Your task to perform on an android device: open app "Google Find My Device" (install if not already installed) Image 0: 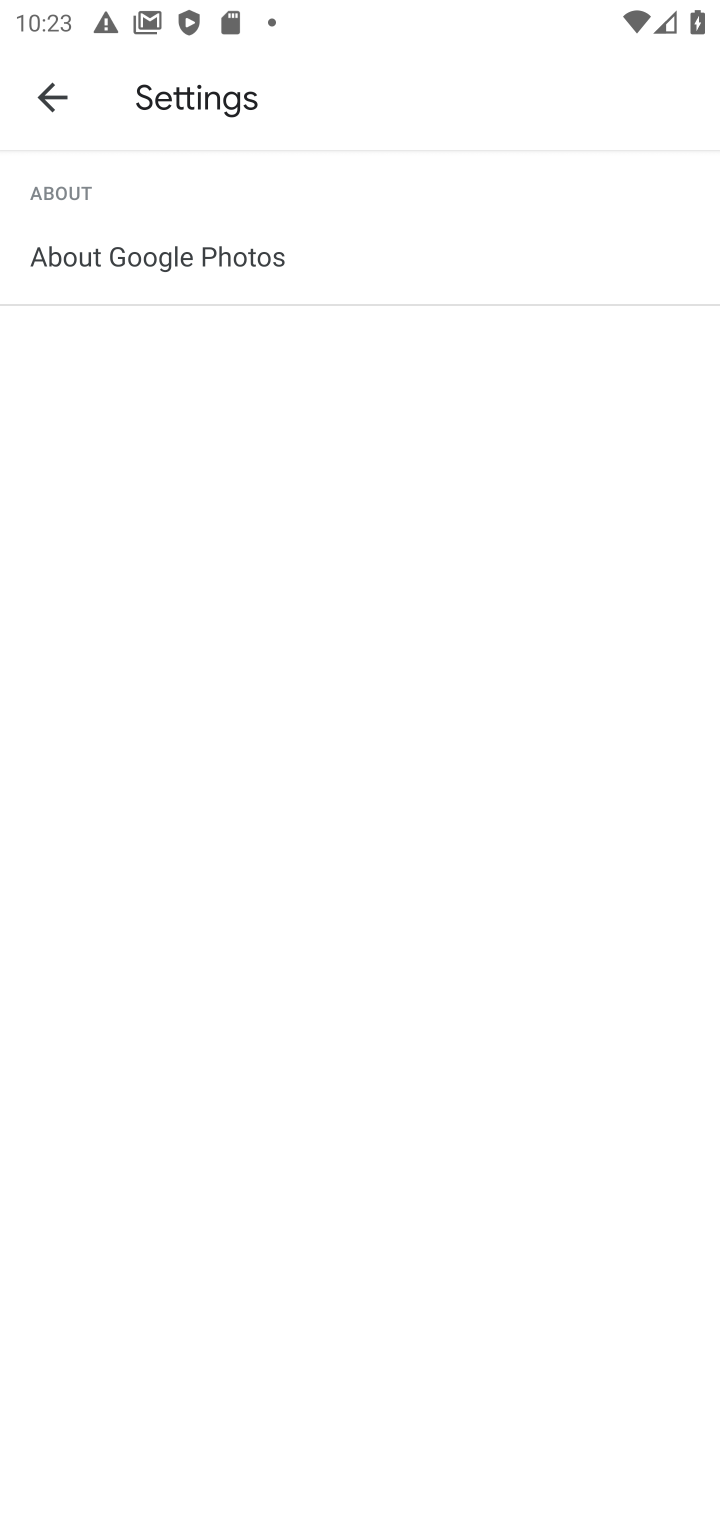
Step 0: press home button
Your task to perform on an android device: open app "Google Find My Device" (install if not already installed) Image 1: 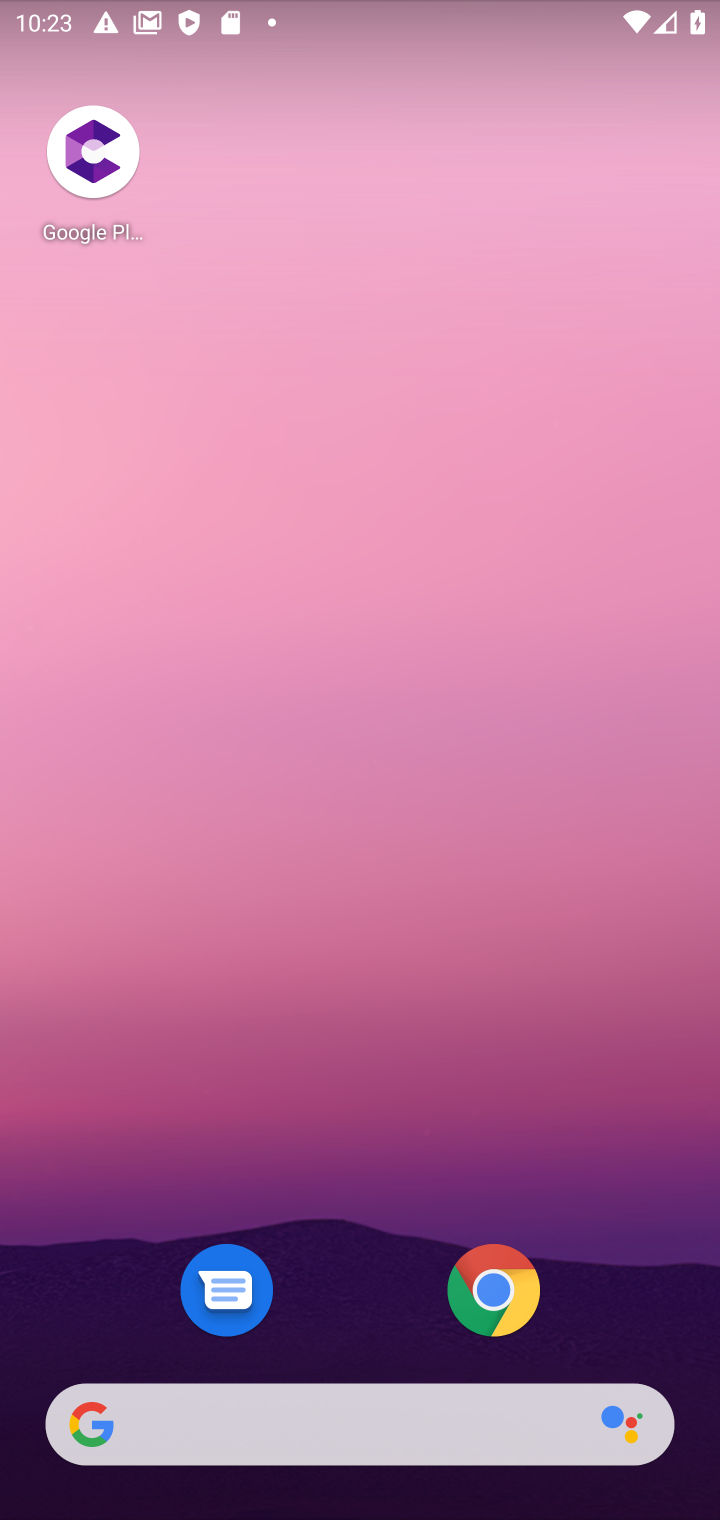
Step 1: drag from (369, 597) to (369, 267)
Your task to perform on an android device: open app "Google Find My Device" (install if not already installed) Image 2: 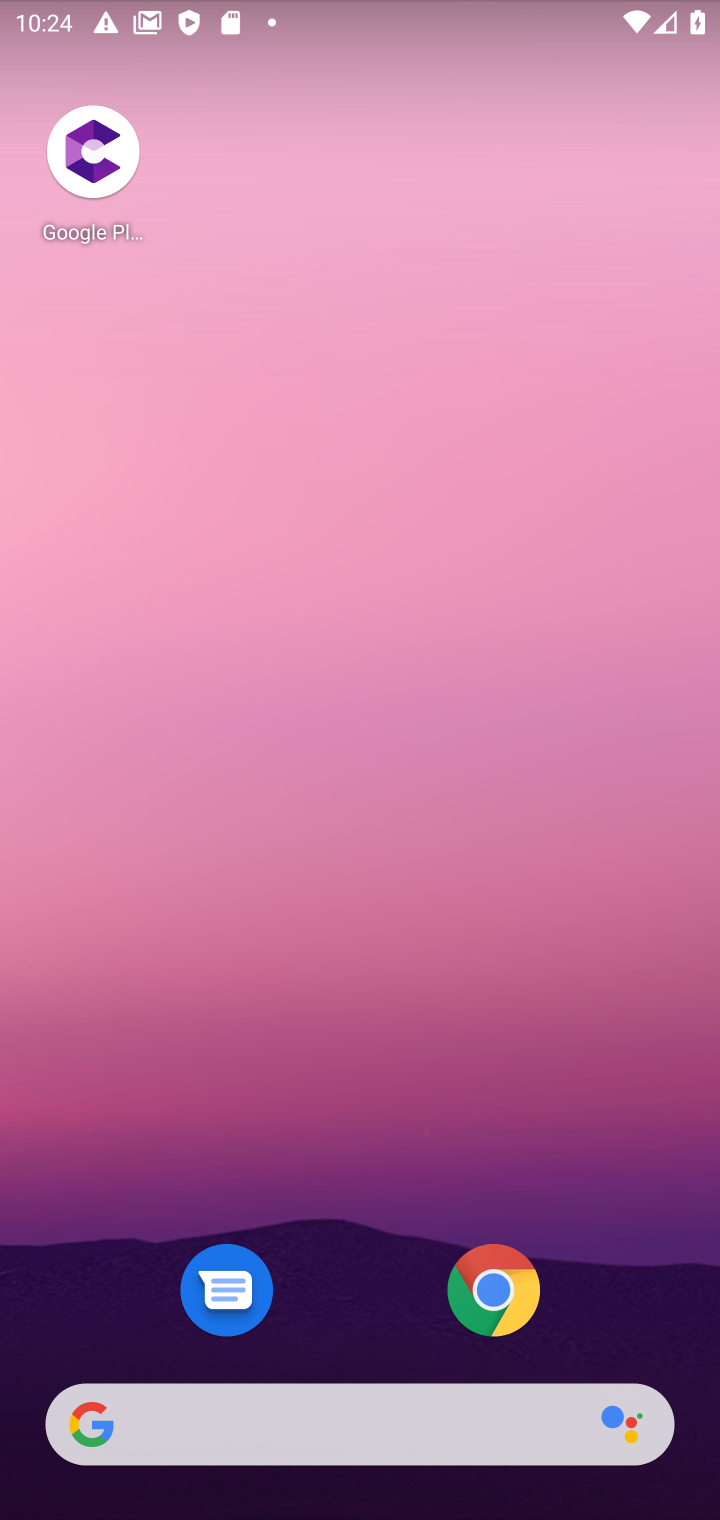
Step 2: drag from (337, 1301) to (338, 206)
Your task to perform on an android device: open app "Google Find My Device" (install if not already installed) Image 3: 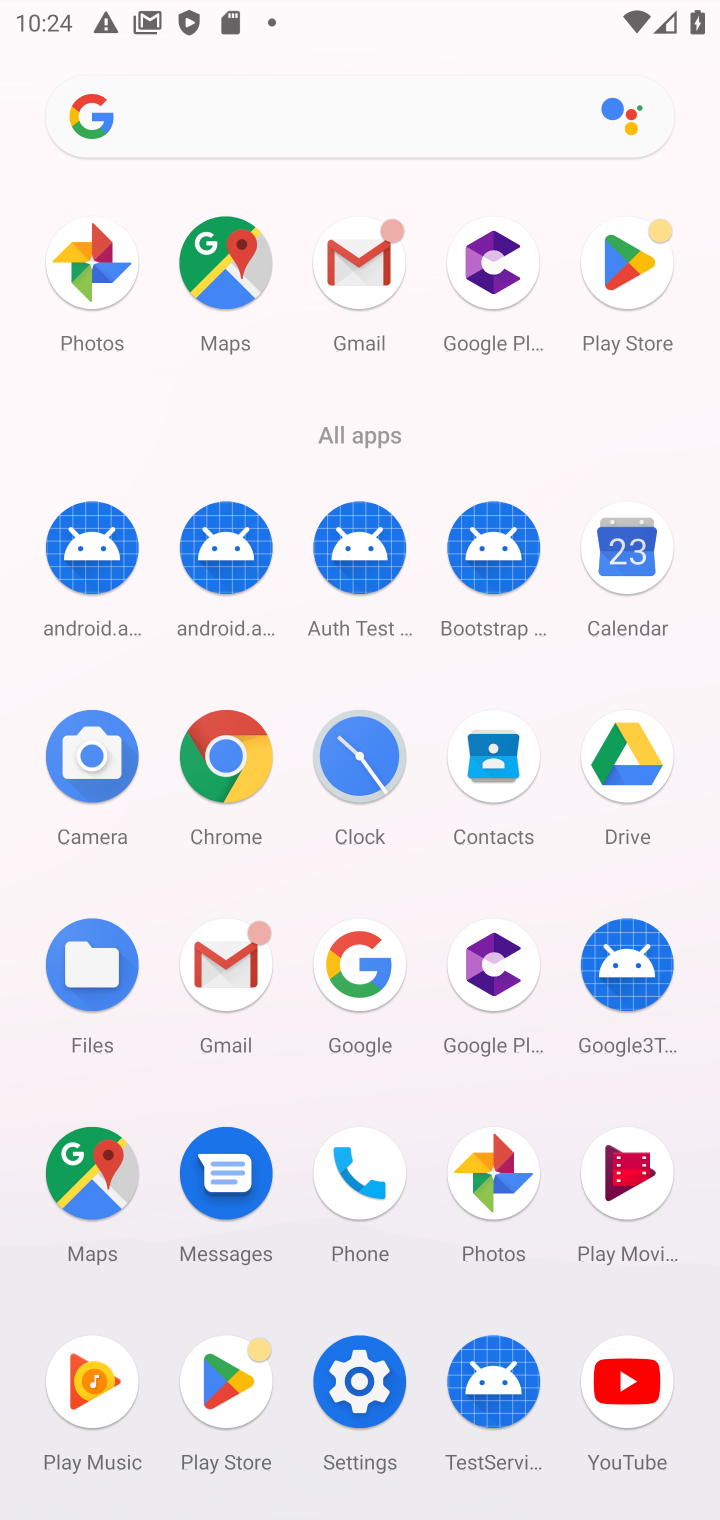
Step 3: click (627, 266)
Your task to perform on an android device: open app "Google Find My Device" (install if not already installed) Image 4: 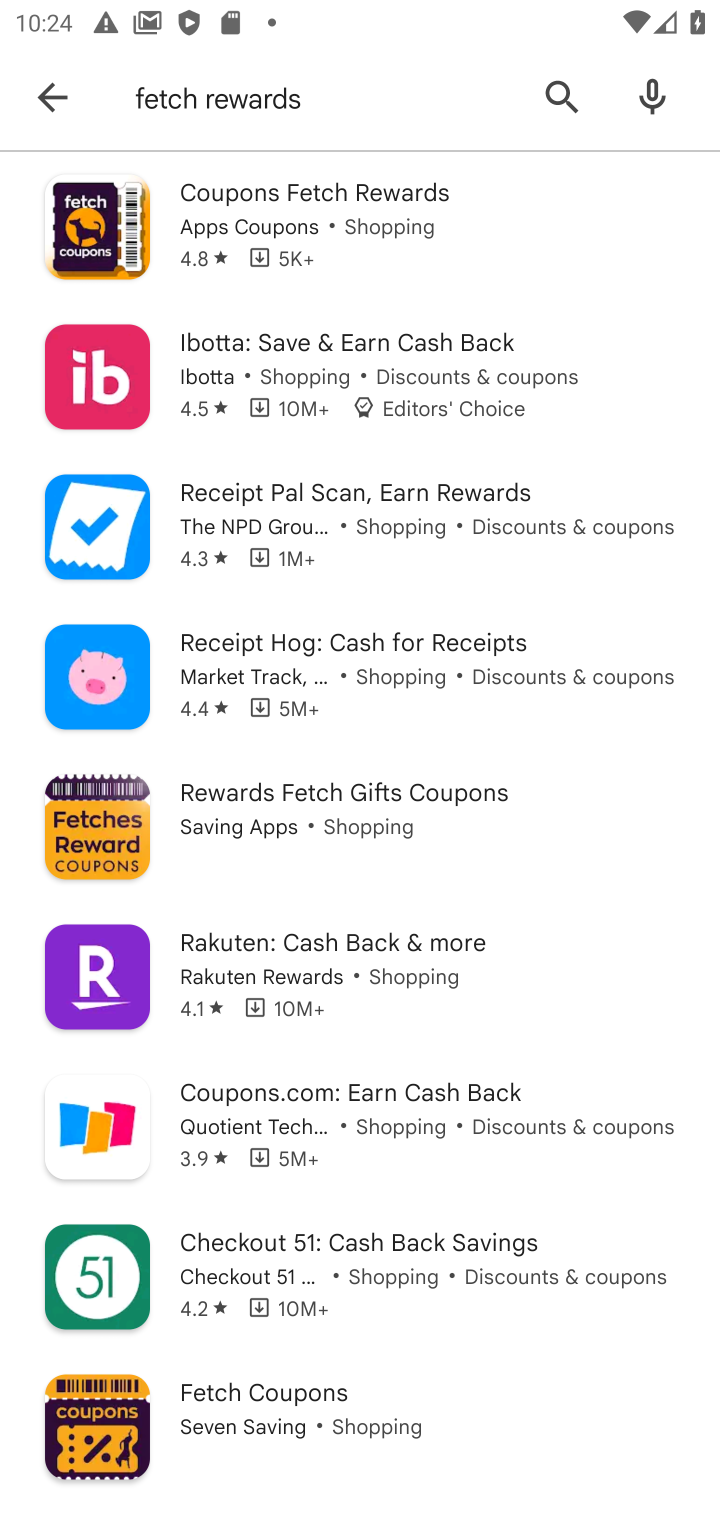
Step 4: click (555, 89)
Your task to perform on an android device: open app "Google Find My Device" (install if not already installed) Image 5: 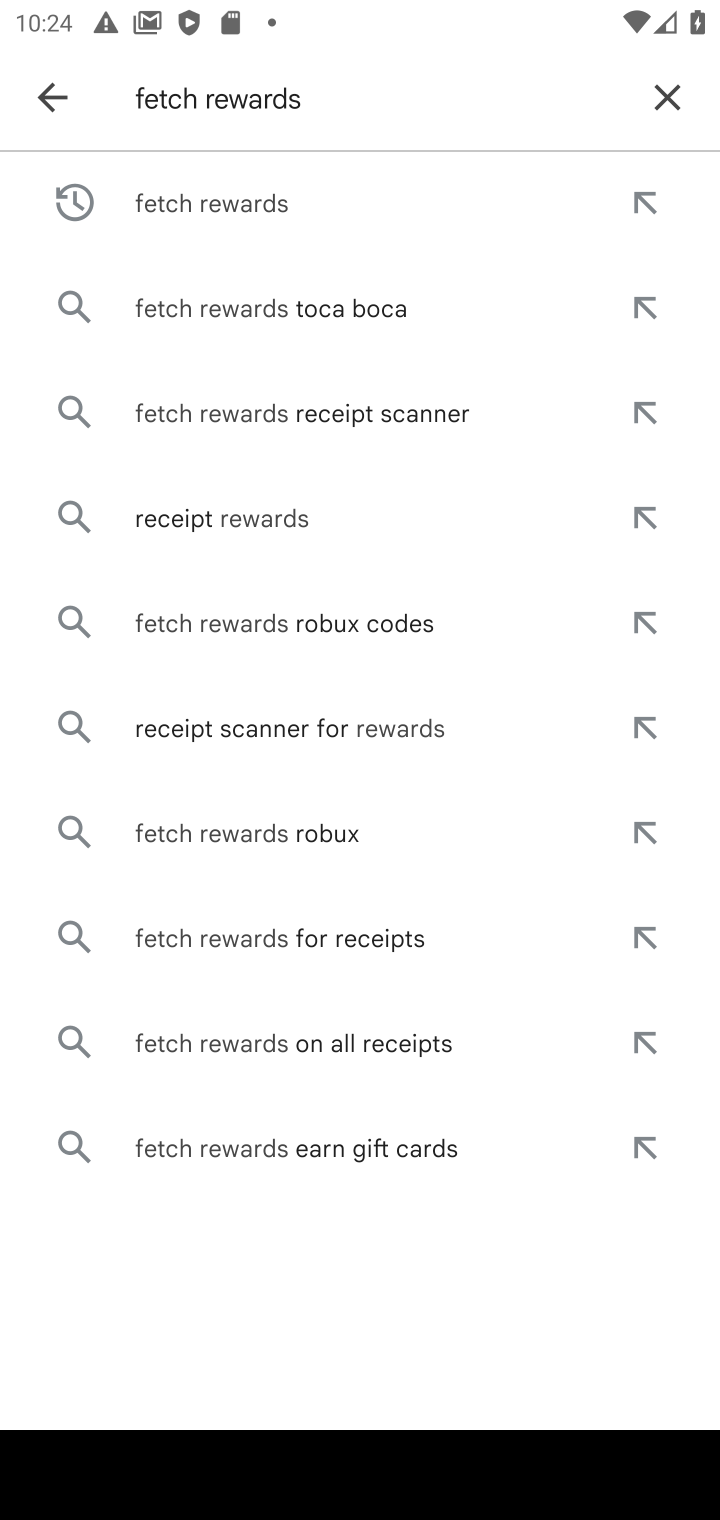
Step 5: click (671, 86)
Your task to perform on an android device: open app "Google Find My Device" (install if not already installed) Image 6: 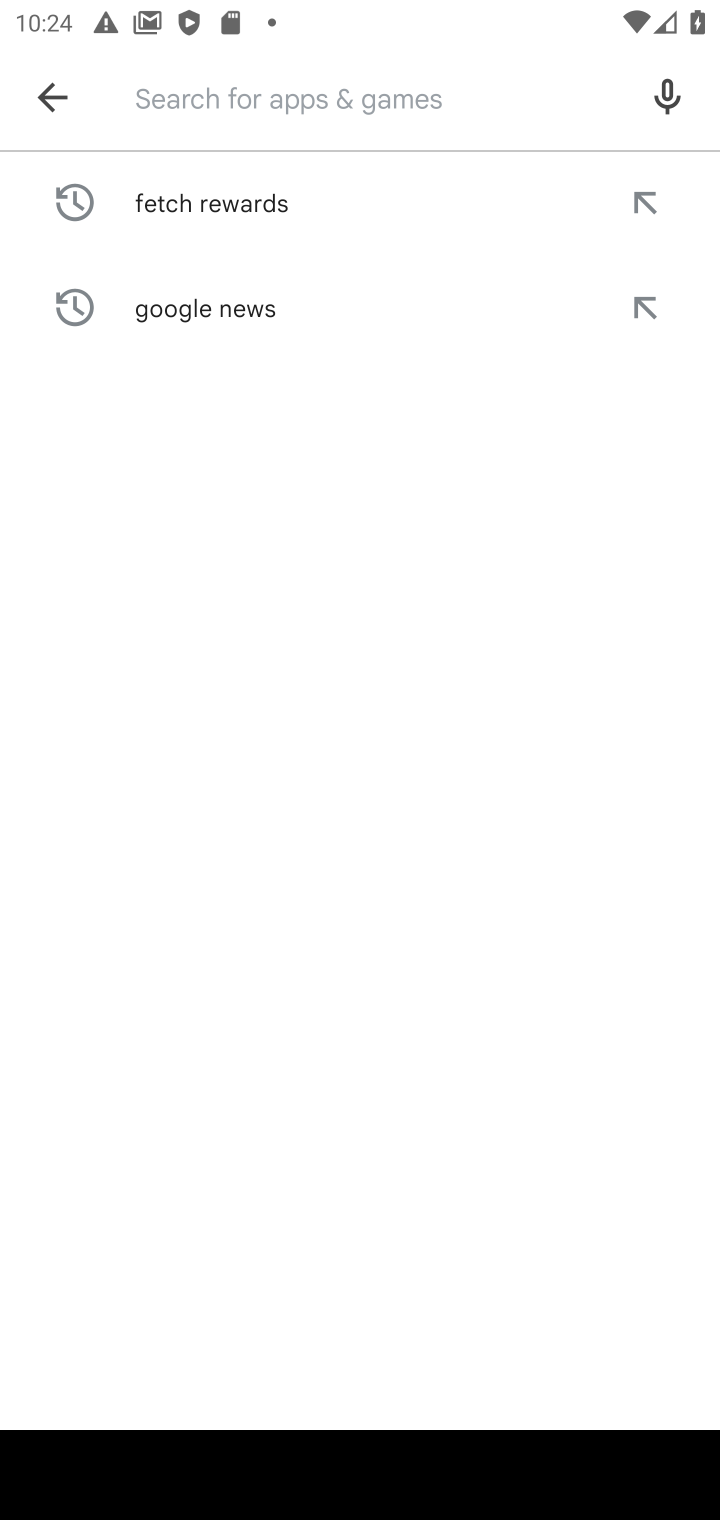
Step 6: type "Google Find My Device"
Your task to perform on an android device: open app "Google Find My Device" (install if not already installed) Image 7: 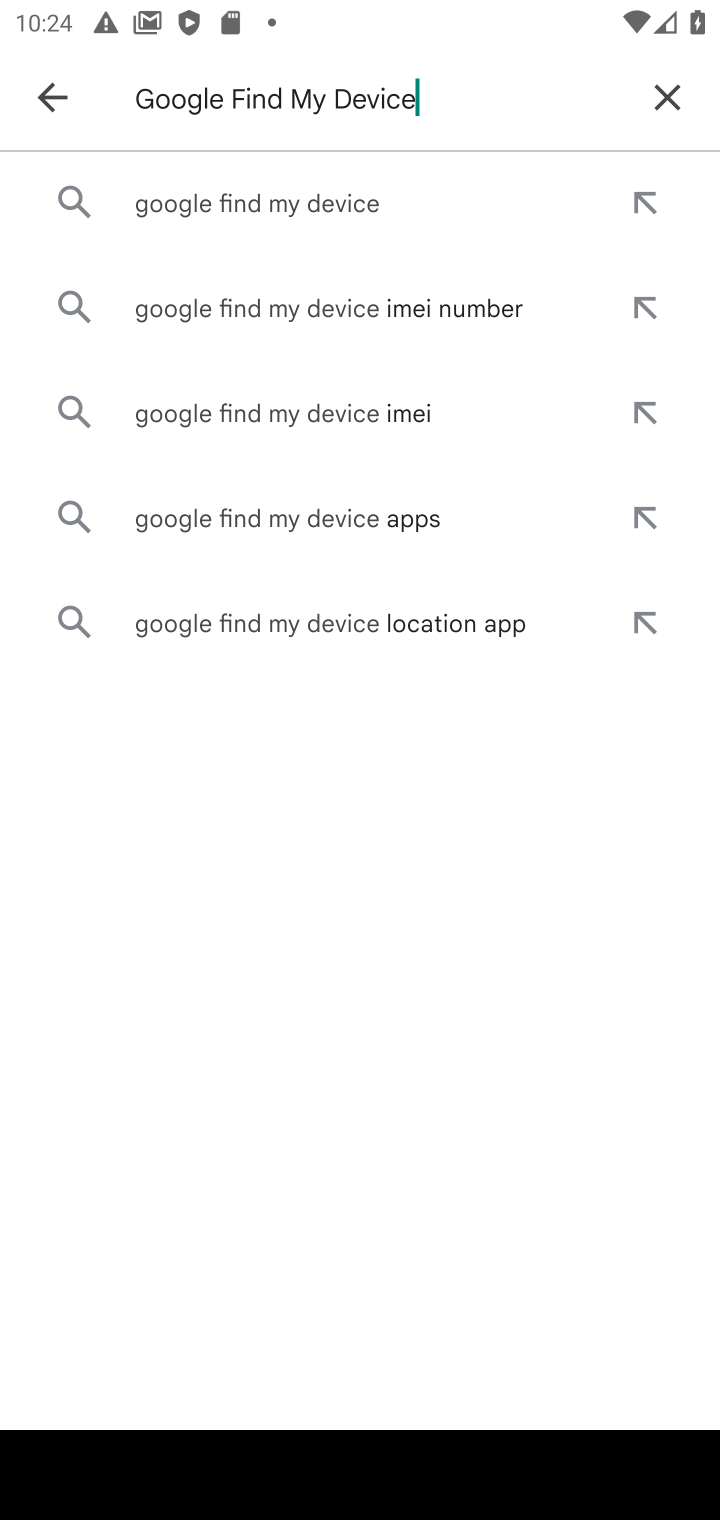
Step 7: click (257, 203)
Your task to perform on an android device: open app "Google Find My Device" (install if not already installed) Image 8: 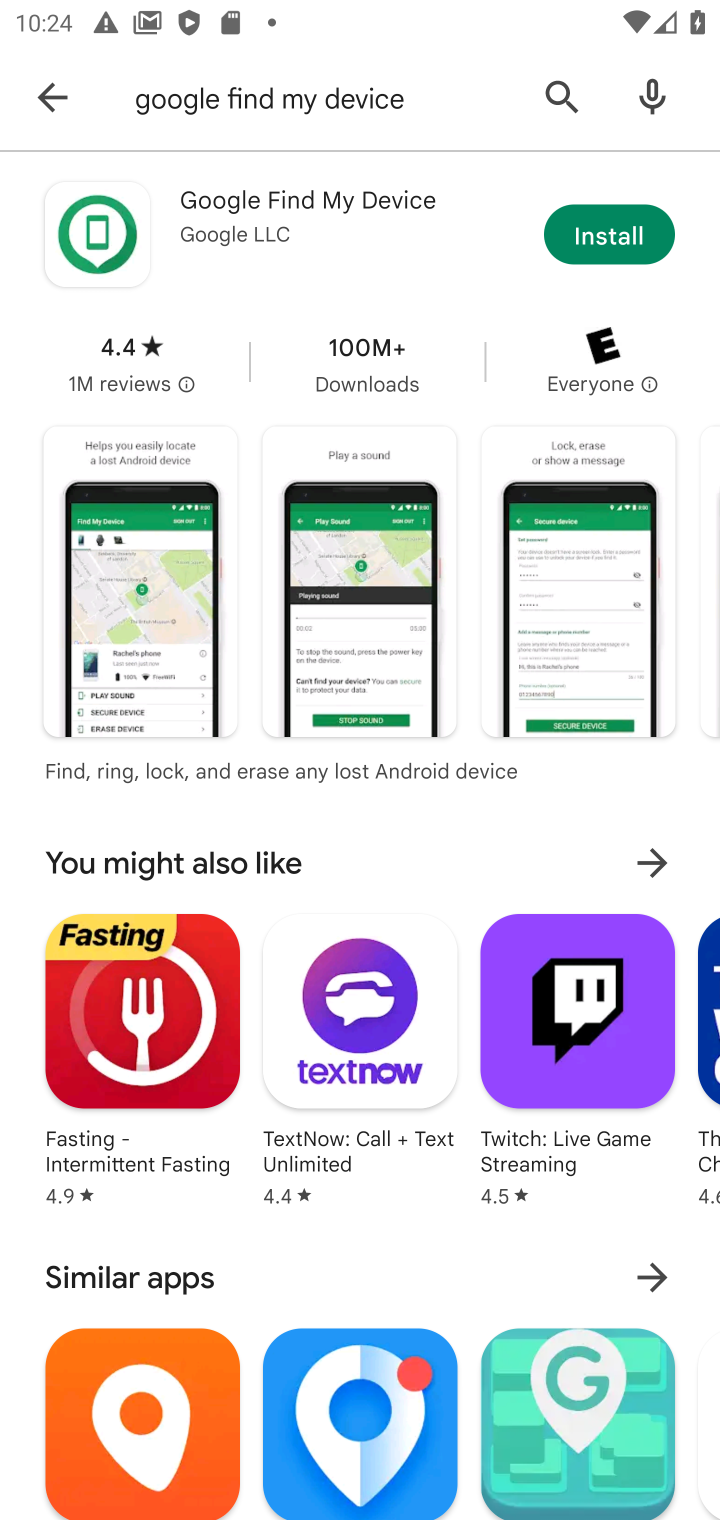
Step 8: click (596, 232)
Your task to perform on an android device: open app "Google Find My Device" (install if not already installed) Image 9: 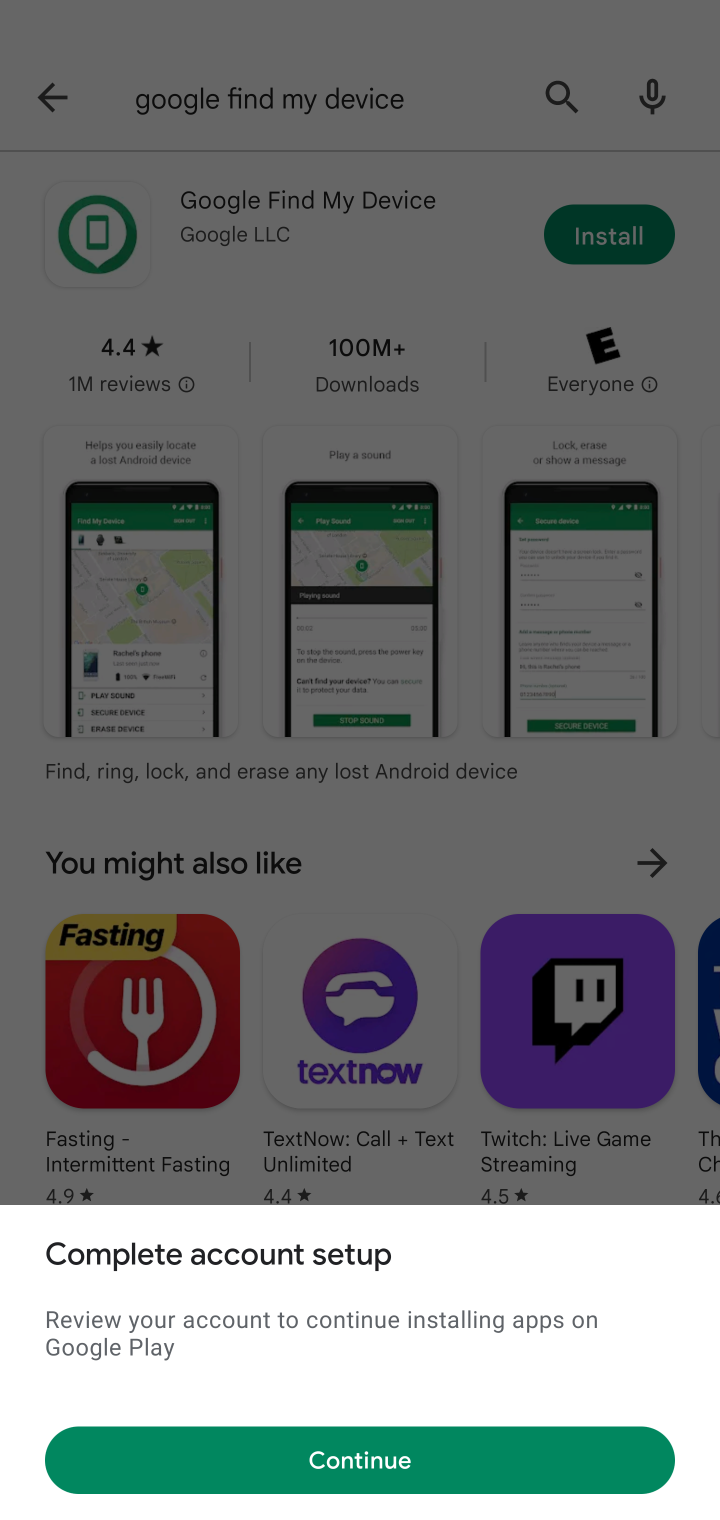
Step 9: click (417, 1476)
Your task to perform on an android device: open app "Google Find My Device" (install if not already installed) Image 10: 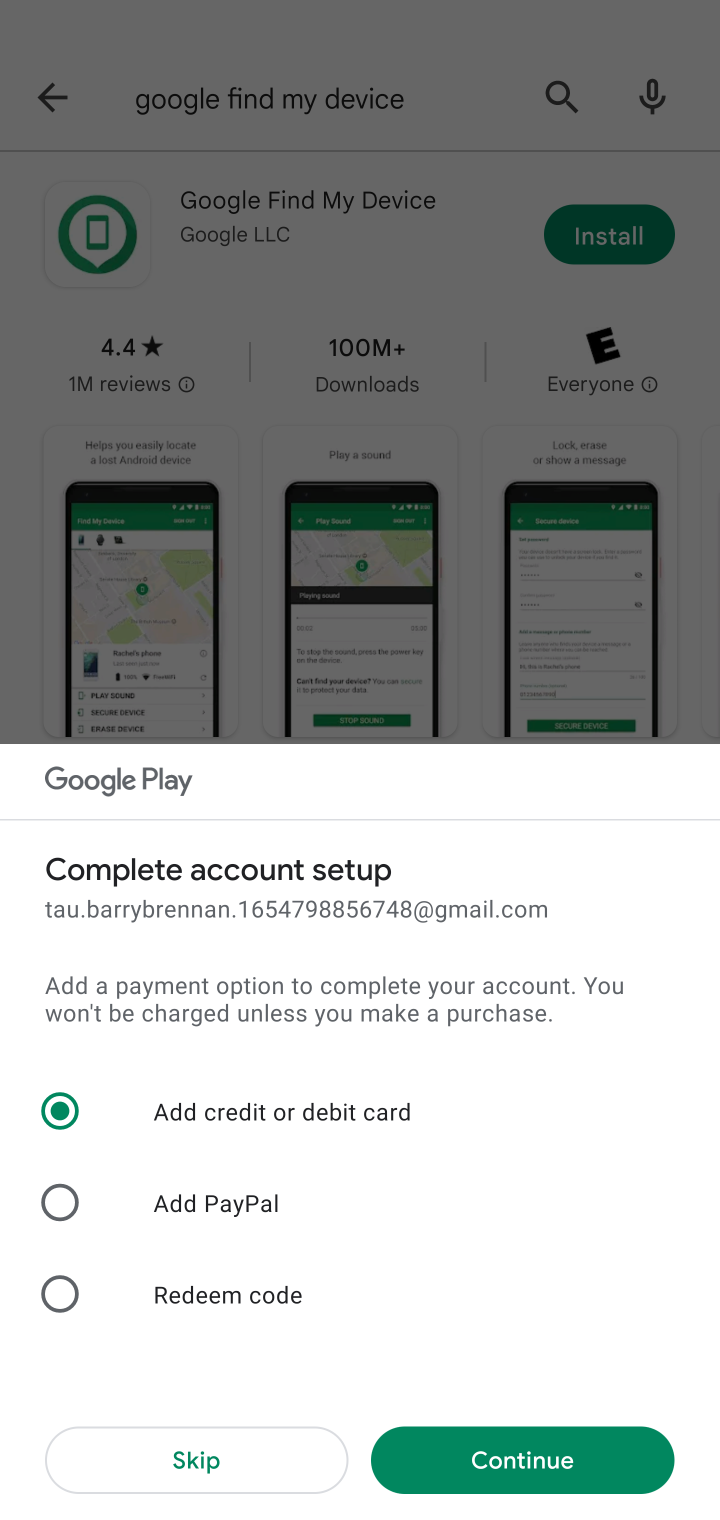
Step 10: click (231, 1462)
Your task to perform on an android device: open app "Google Find My Device" (install if not already installed) Image 11: 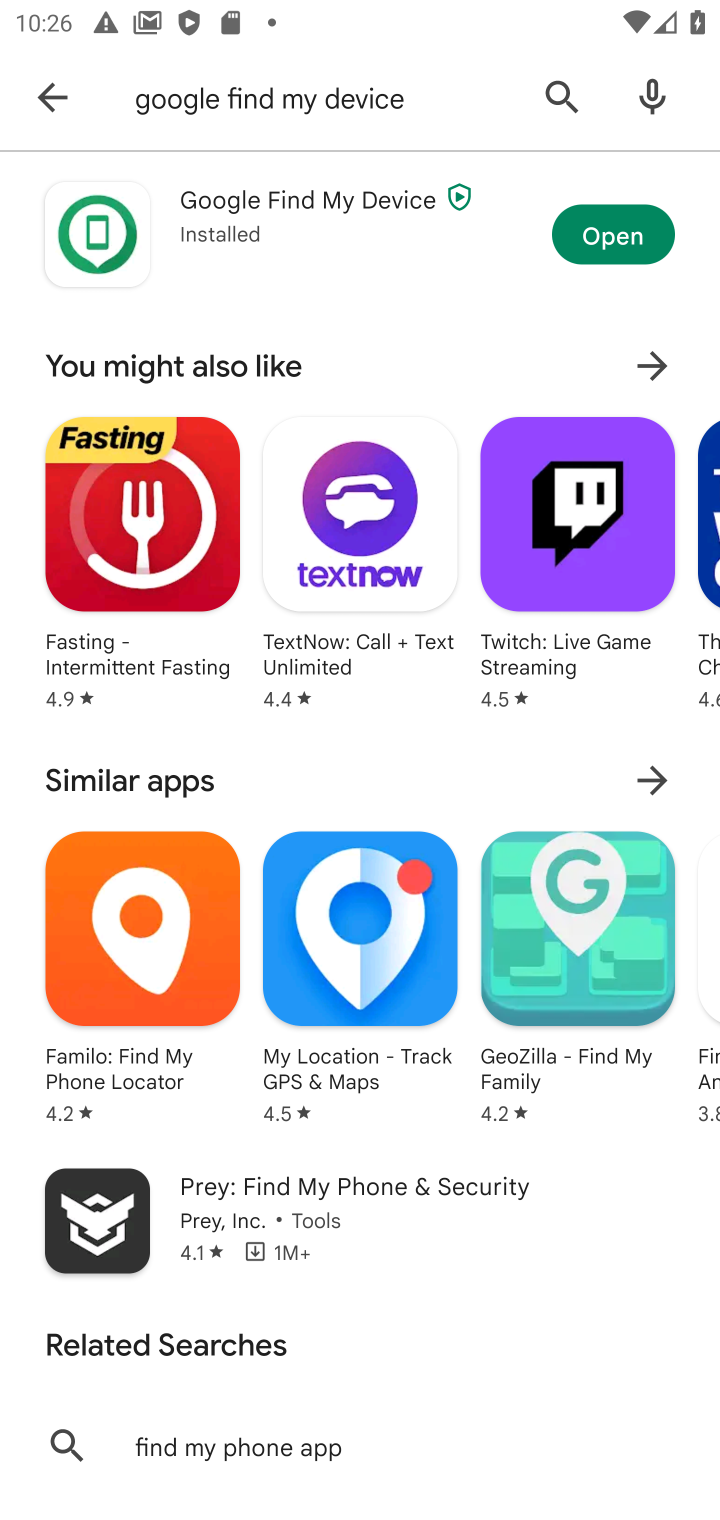
Step 11: click (616, 238)
Your task to perform on an android device: open app "Google Find My Device" (install if not already installed) Image 12: 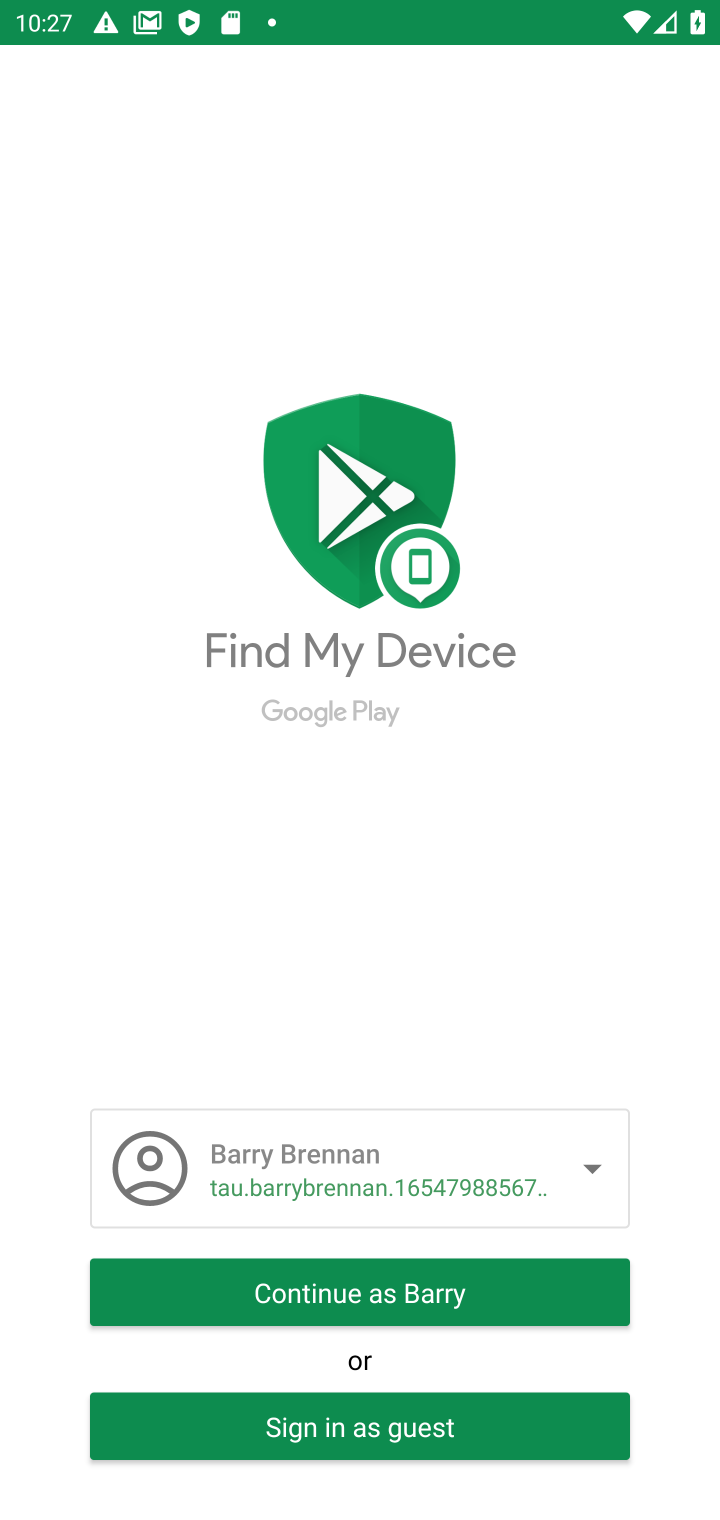
Step 12: task complete